Your task to perform on an android device: change the clock style Image 0: 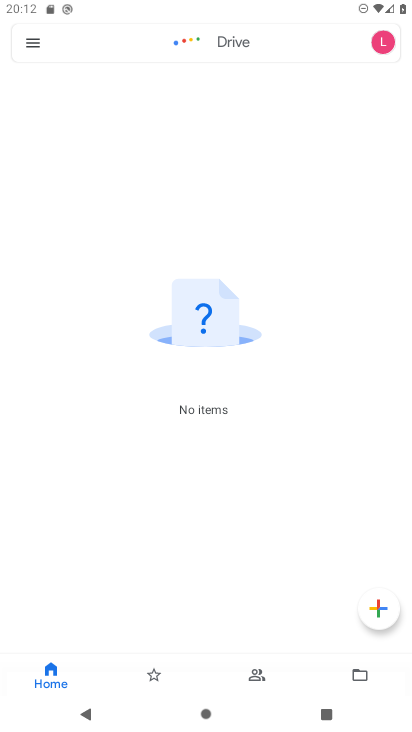
Step 0: press home button
Your task to perform on an android device: change the clock style Image 1: 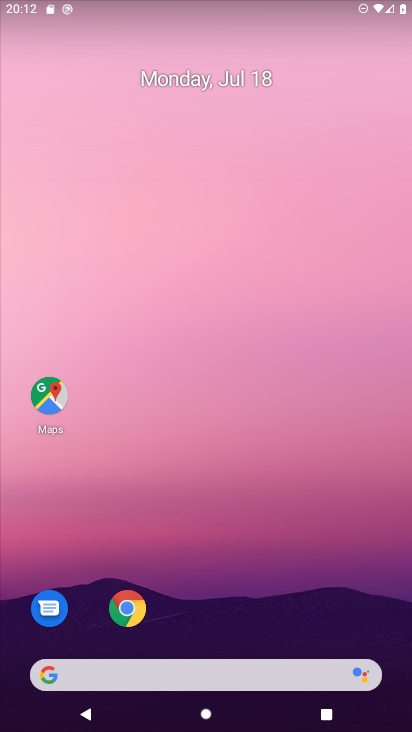
Step 1: drag from (247, 633) to (295, 108)
Your task to perform on an android device: change the clock style Image 2: 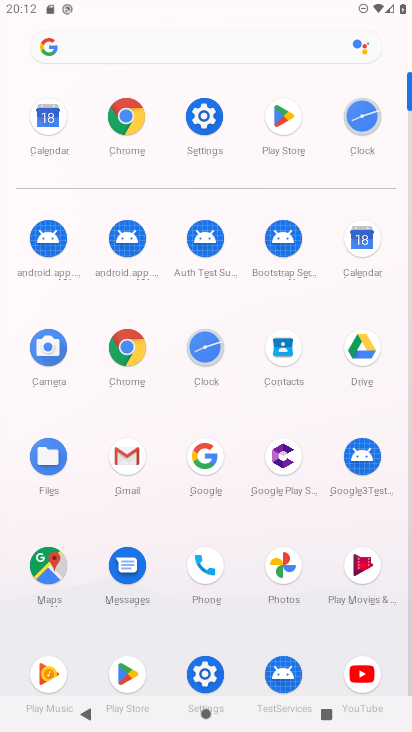
Step 2: click (205, 349)
Your task to perform on an android device: change the clock style Image 3: 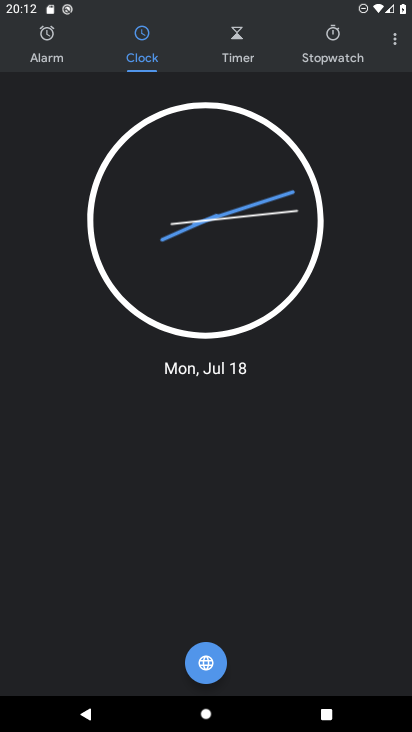
Step 3: click (395, 33)
Your task to perform on an android device: change the clock style Image 4: 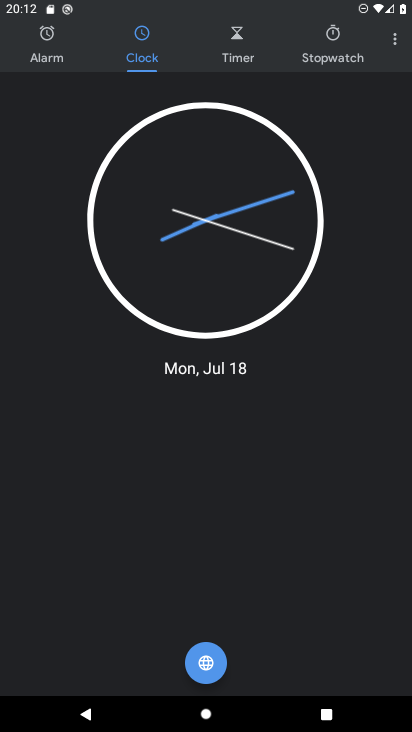
Step 4: click (392, 38)
Your task to perform on an android device: change the clock style Image 5: 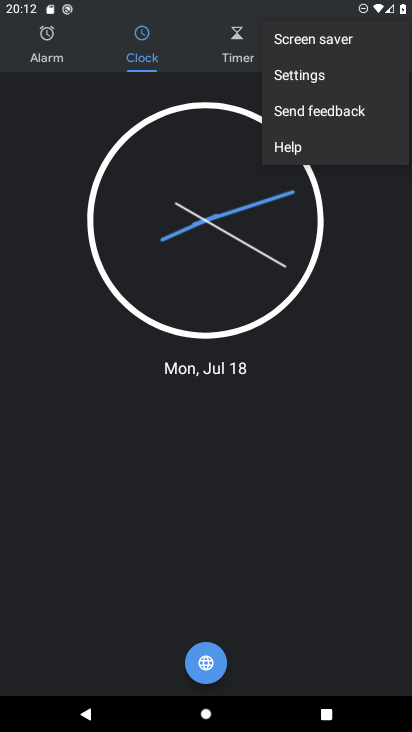
Step 5: click (302, 79)
Your task to perform on an android device: change the clock style Image 6: 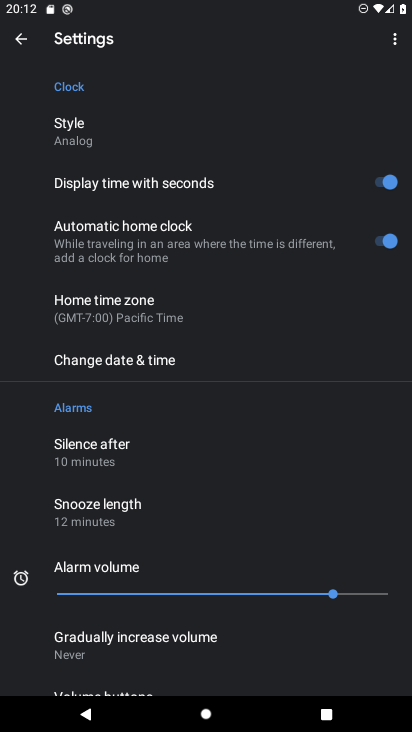
Step 6: click (92, 124)
Your task to perform on an android device: change the clock style Image 7: 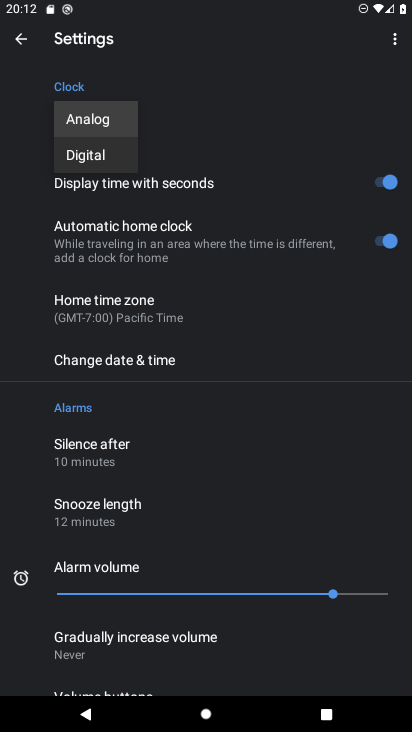
Step 7: click (92, 158)
Your task to perform on an android device: change the clock style Image 8: 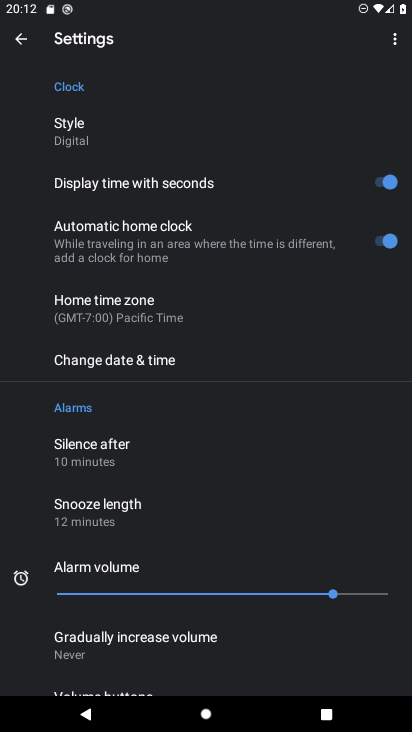
Step 8: task complete